Your task to perform on an android device: Search for vegetarian restaurants on Maps Image 0: 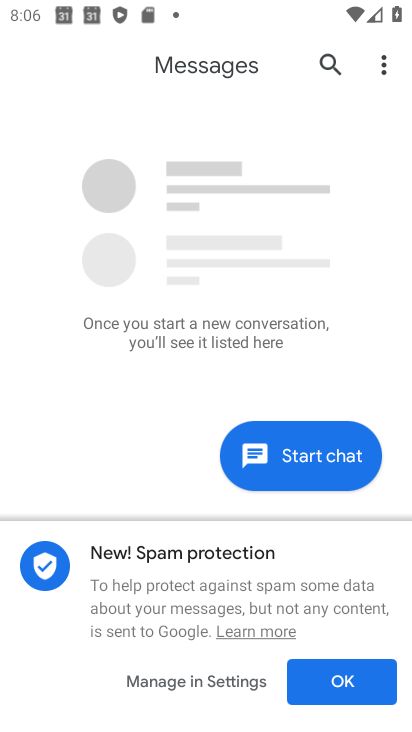
Step 0: press home button
Your task to perform on an android device: Search for vegetarian restaurants on Maps Image 1: 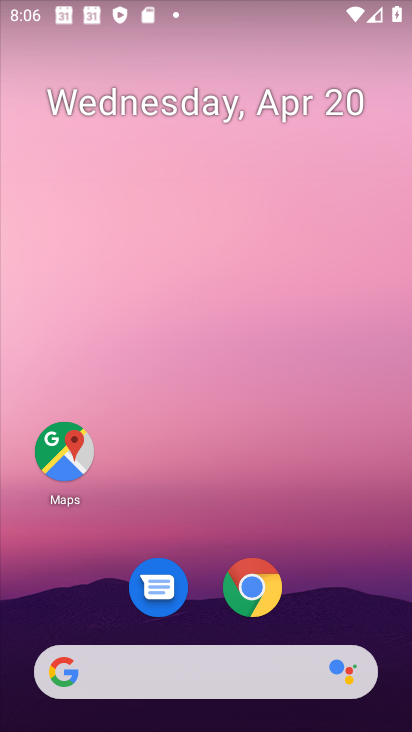
Step 1: drag from (352, 602) to (356, 235)
Your task to perform on an android device: Search for vegetarian restaurants on Maps Image 2: 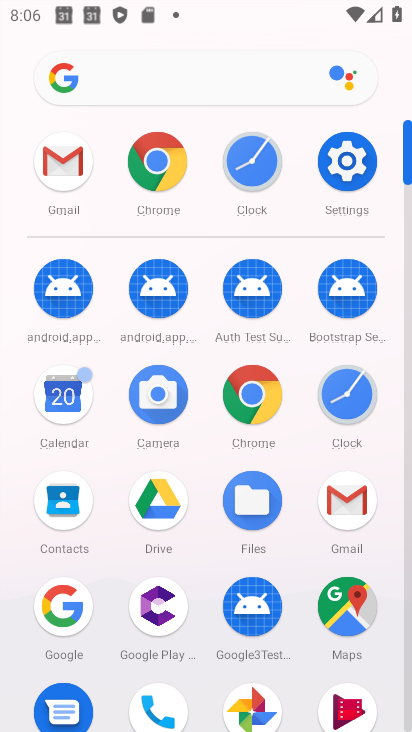
Step 2: click (355, 619)
Your task to perform on an android device: Search for vegetarian restaurants on Maps Image 3: 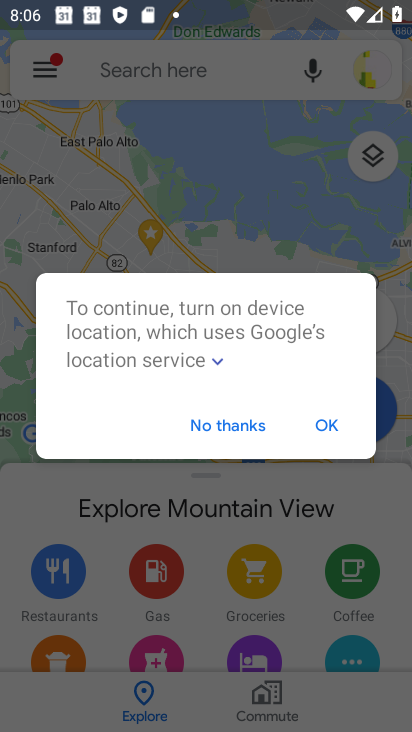
Step 3: click (246, 431)
Your task to perform on an android device: Search for vegetarian restaurants on Maps Image 4: 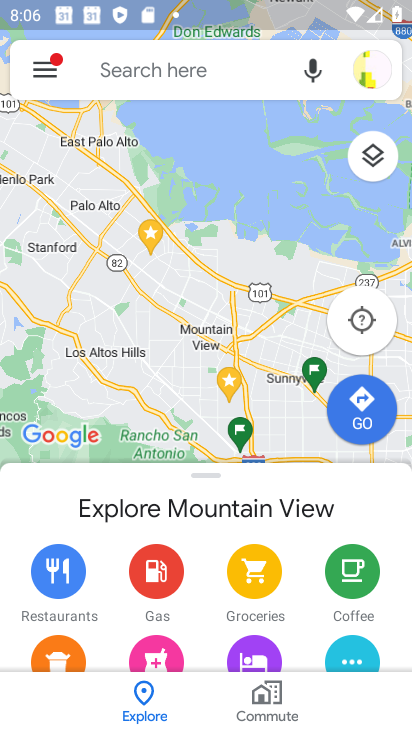
Step 4: click (223, 69)
Your task to perform on an android device: Search for vegetarian restaurants on Maps Image 5: 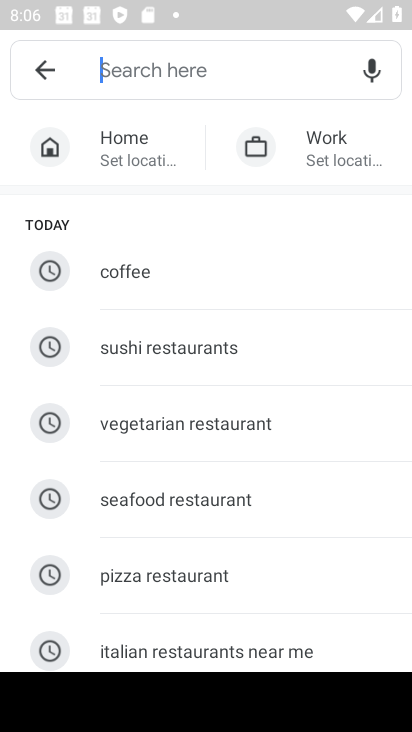
Step 5: type "vegetrain restaurants"
Your task to perform on an android device: Search for vegetarian restaurants on Maps Image 6: 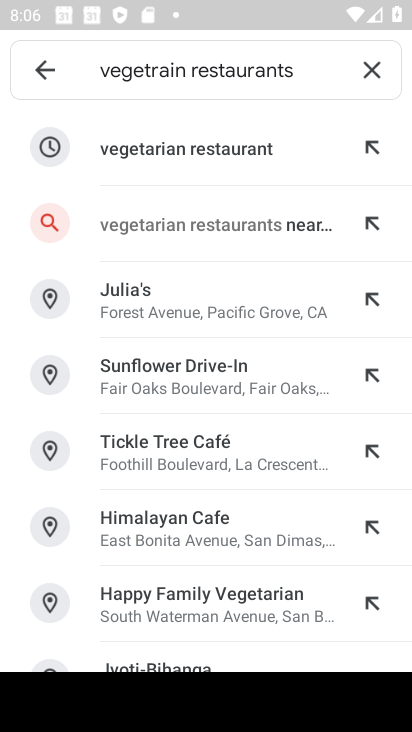
Step 6: click (186, 152)
Your task to perform on an android device: Search for vegetarian restaurants on Maps Image 7: 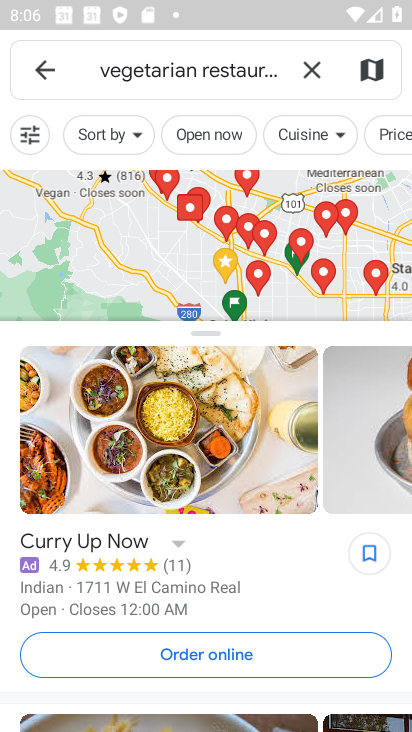
Step 7: task complete